Your task to perform on an android device: Open location settings Image 0: 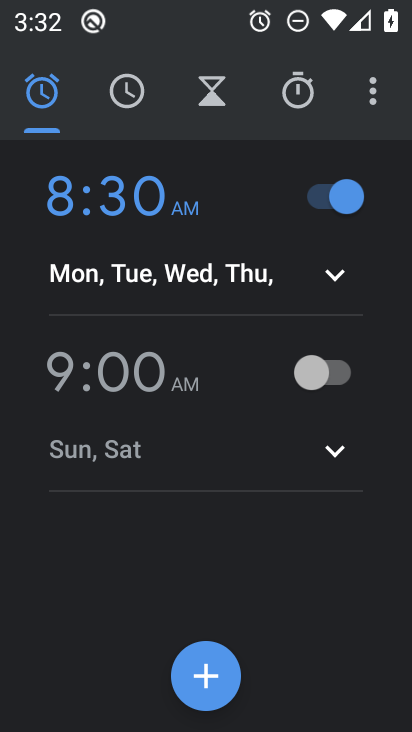
Step 0: press home button
Your task to perform on an android device: Open location settings Image 1: 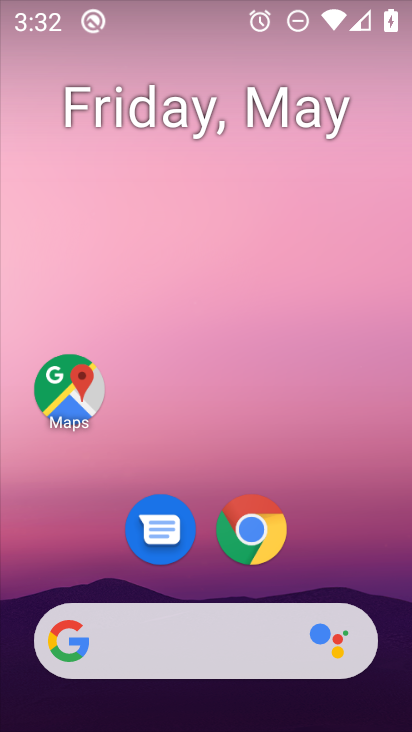
Step 1: drag from (394, 701) to (357, 230)
Your task to perform on an android device: Open location settings Image 2: 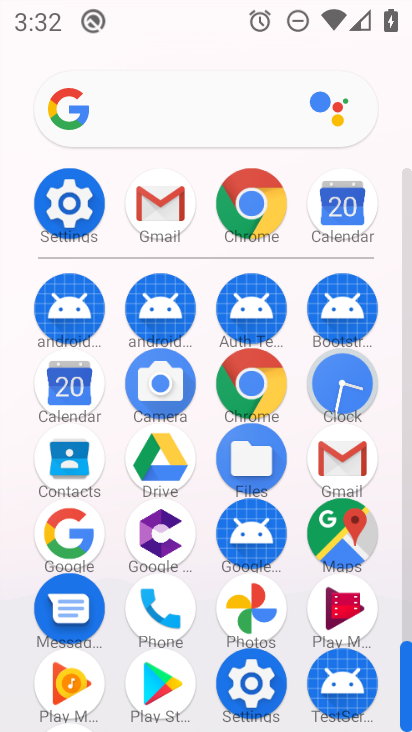
Step 2: click (58, 217)
Your task to perform on an android device: Open location settings Image 3: 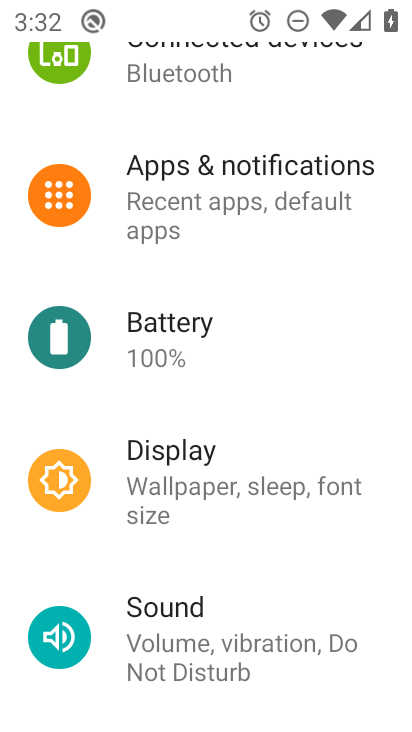
Step 3: drag from (324, 695) to (314, 267)
Your task to perform on an android device: Open location settings Image 4: 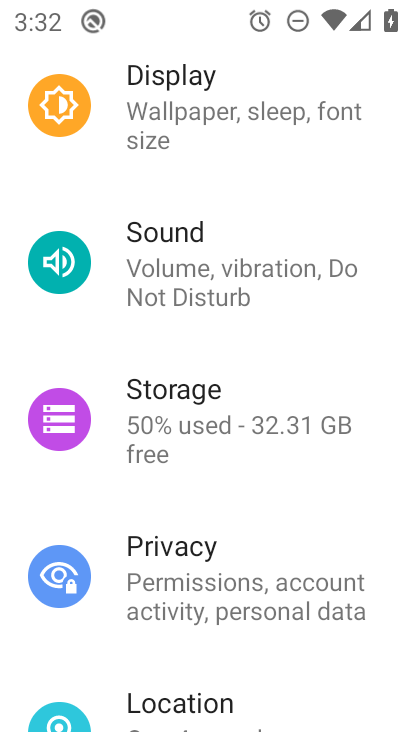
Step 4: drag from (317, 664) to (326, 368)
Your task to perform on an android device: Open location settings Image 5: 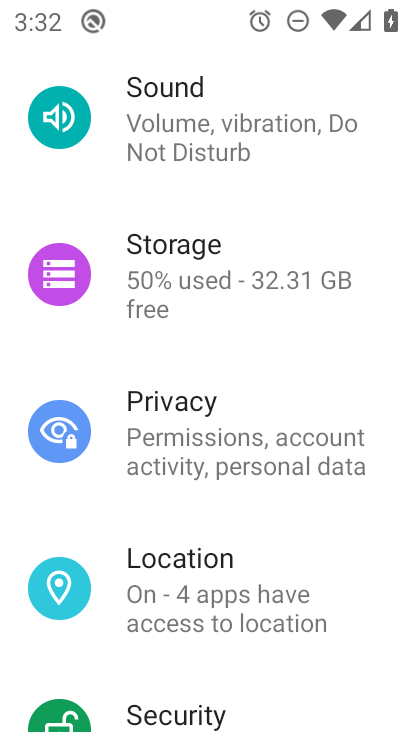
Step 5: click (139, 564)
Your task to perform on an android device: Open location settings Image 6: 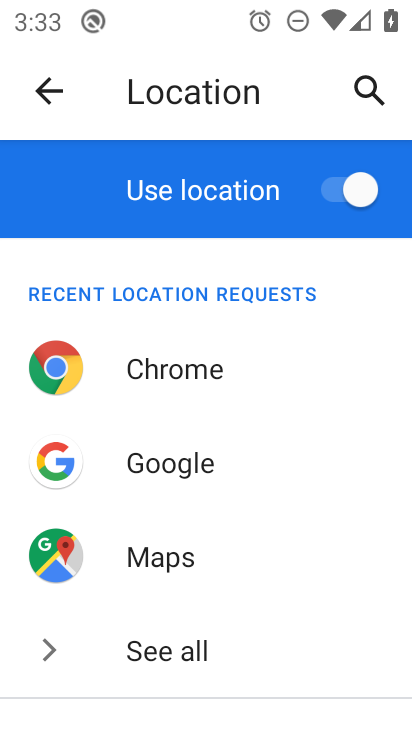
Step 6: task complete